Your task to perform on an android device: Is it going to rain this weekend? Image 0: 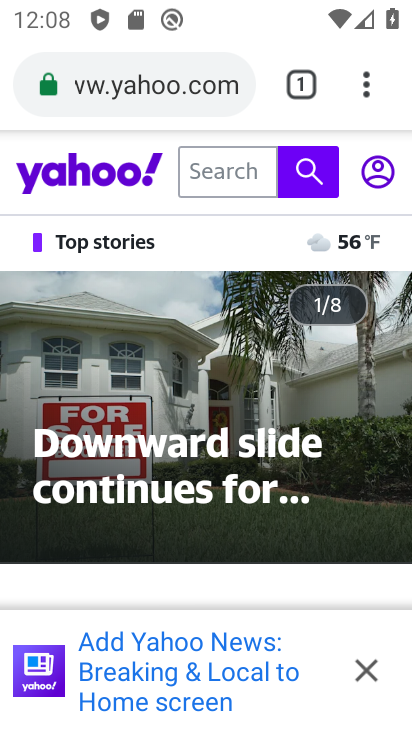
Step 0: press home button
Your task to perform on an android device: Is it going to rain this weekend? Image 1: 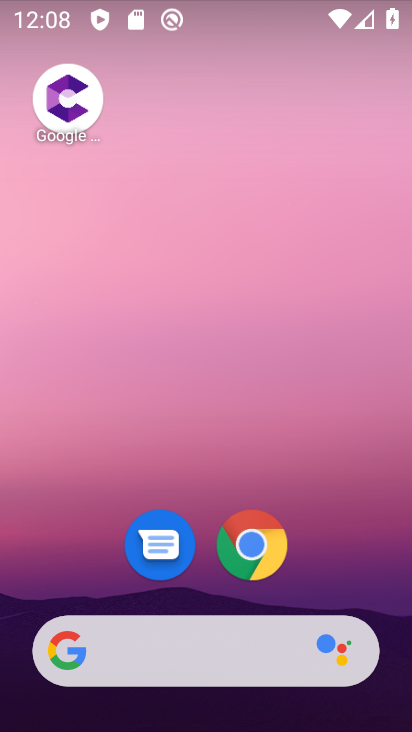
Step 1: click (199, 639)
Your task to perform on an android device: Is it going to rain this weekend? Image 2: 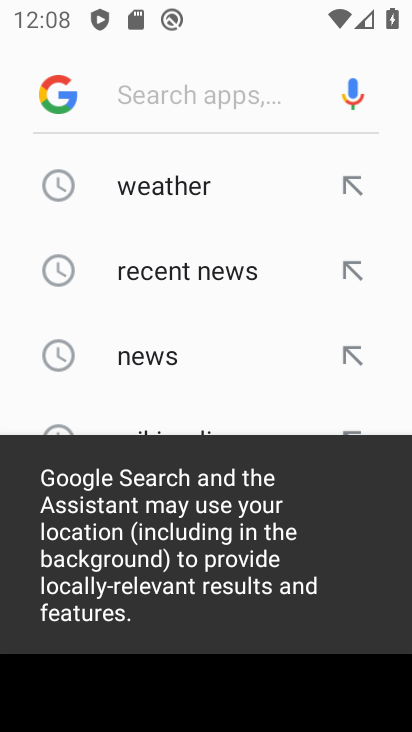
Step 2: click (201, 194)
Your task to perform on an android device: Is it going to rain this weekend? Image 3: 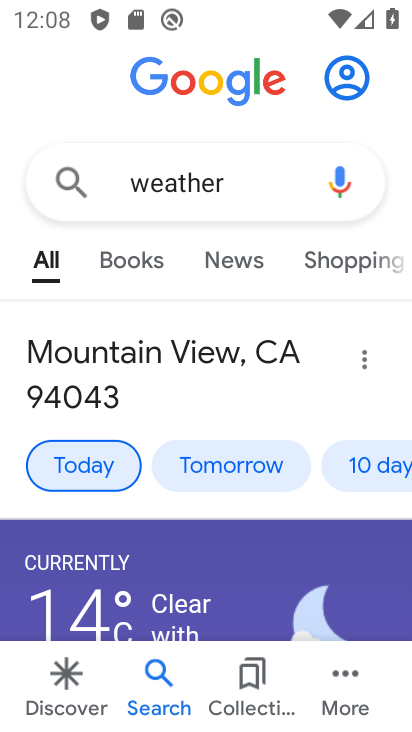
Step 3: task complete